Your task to perform on an android device: set default search engine in the chrome app Image 0: 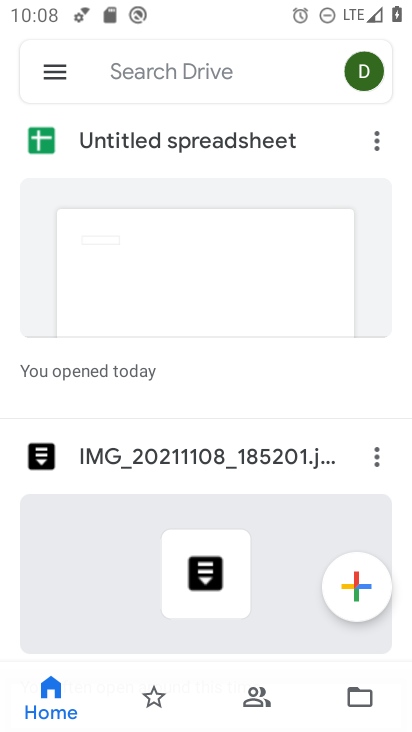
Step 0: press home button
Your task to perform on an android device: set default search engine in the chrome app Image 1: 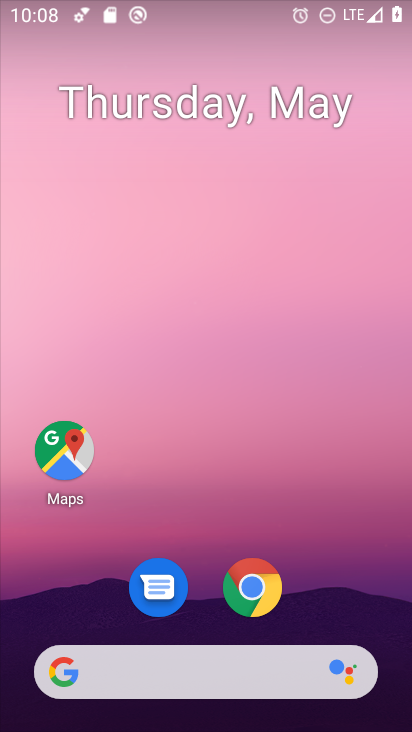
Step 1: click (254, 593)
Your task to perform on an android device: set default search engine in the chrome app Image 2: 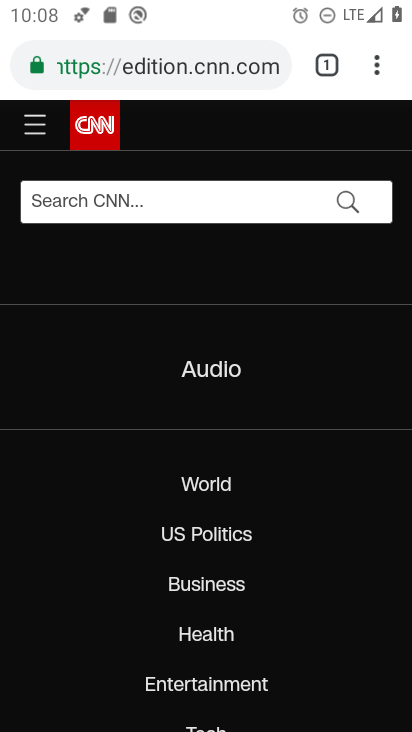
Step 2: click (378, 69)
Your task to perform on an android device: set default search engine in the chrome app Image 3: 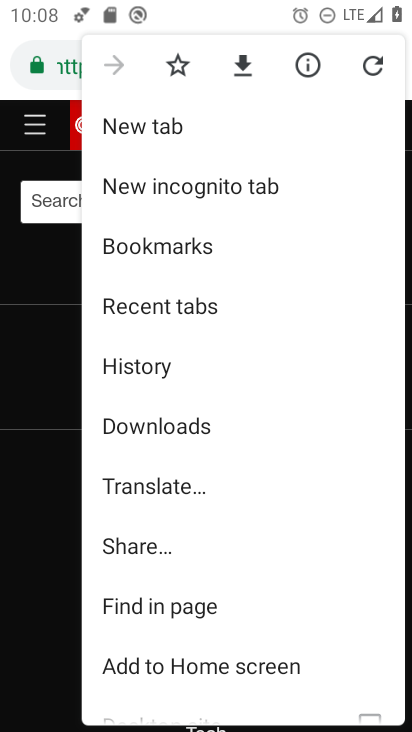
Step 3: drag from (240, 599) to (244, 270)
Your task to perform on an android device: set default search engine in the chrome app Image 4: 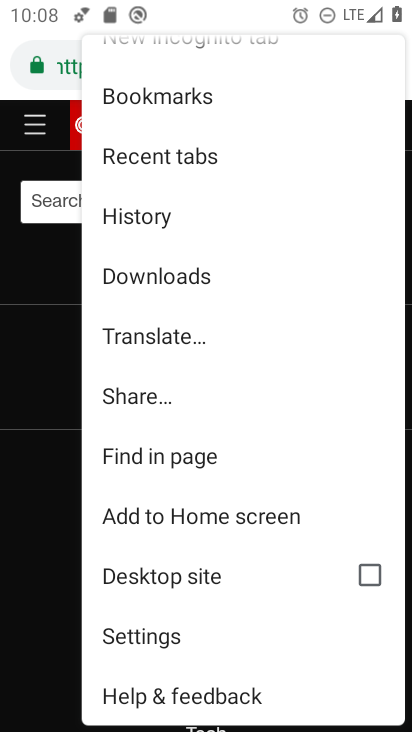
Step 4: click (152, 635)
Your task to perform on an android device: set default search engine in the chrome app Image 5: 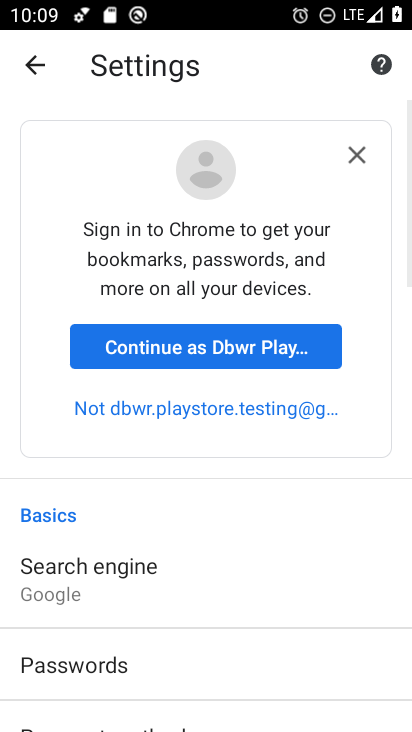
Step 5: drag from (168, 633) to (202, 222)
Your task to perform on an android device: set default search engine in the chrome app Image 6: 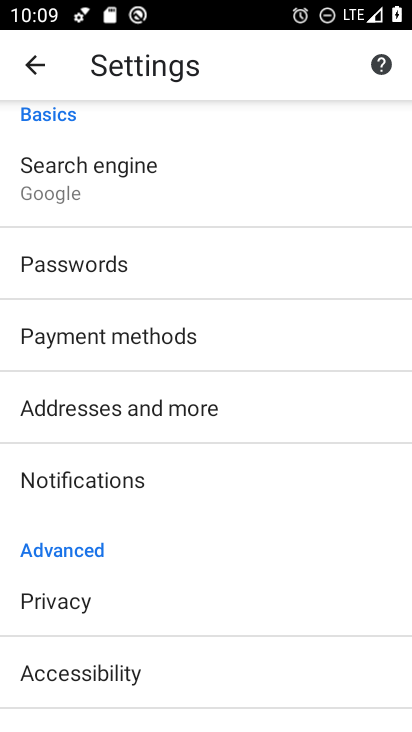
Step 6: click (74, 184)
Your task to perform on an android device: set default search engine in the chrome app Image 7: 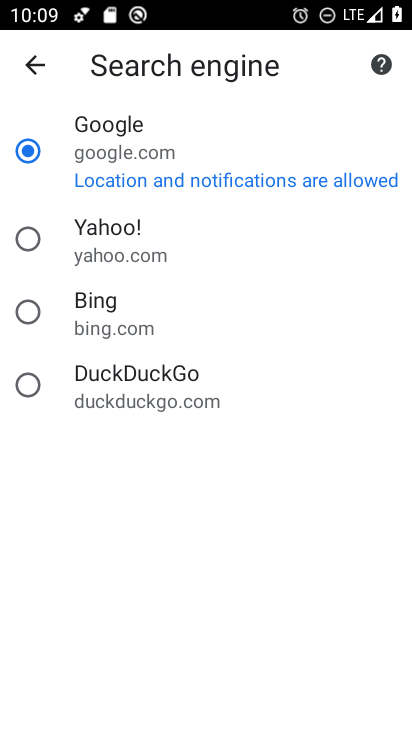
Step 7: click (24, 248)
Your task to perform on an android device: set default search engine in the chrome app Image 8: 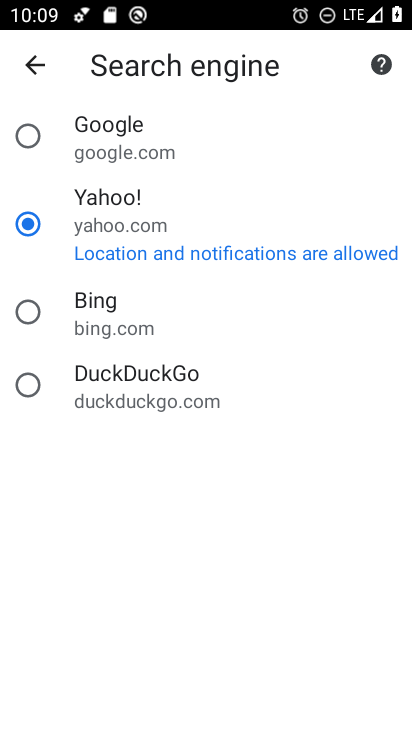
Step 8: task complete